Your task to perform on an android device: Play the last video I watched on Youtube Image 0: 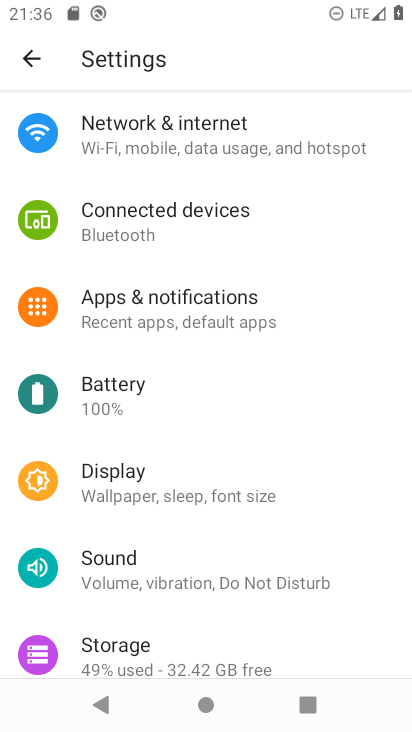
Step 0: press home button
Your task to perform on an android device: Play the last video I watched on Youtube Image 1: 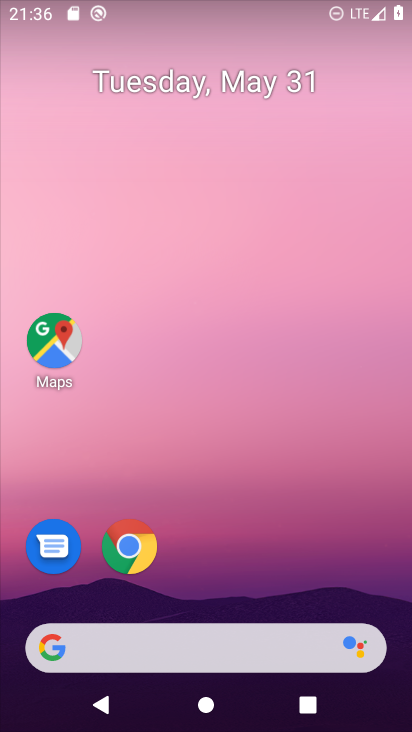
Step 1: drag from (394, 620) to (365, 122)
Your task to perform on an android device: Play the last video I watched on Youtube Image 2: 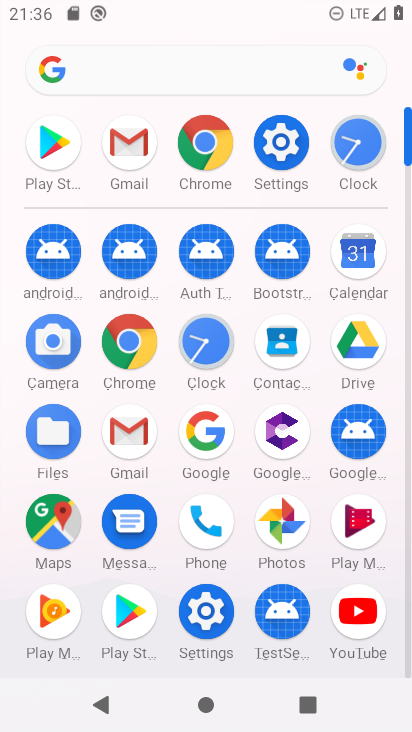
Step 2: click (355, 606)
Your task to perform on an android device: Play the last video I watched on Youtube Image 3: 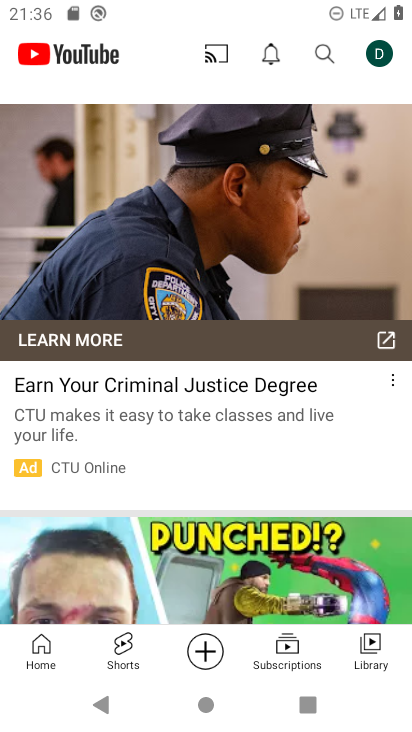
Step 3: click (368, 653)
Your task to perform on an android device: Play the last video I watched on Youtube Image 4: 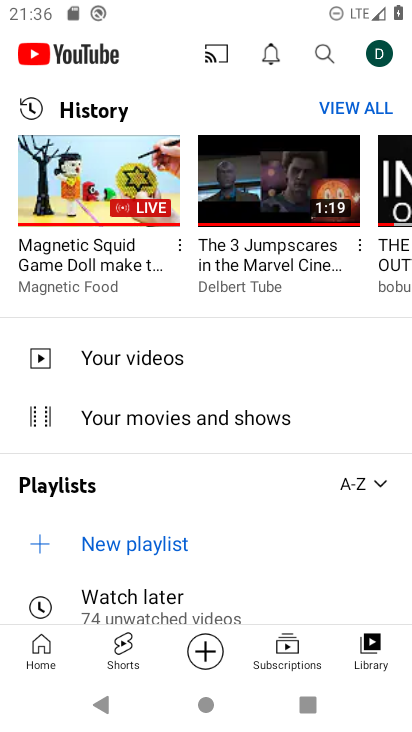
Step 4: click (87, 183)
Your task to perform on an android device: Play the last video I watched on Youtube Image 5: 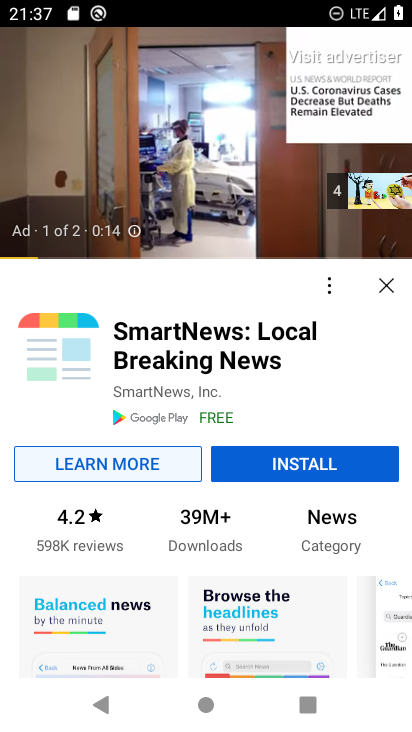
Step 5: task complete